Your task to perform on an android device: add a contact in the contacts app Image 0: 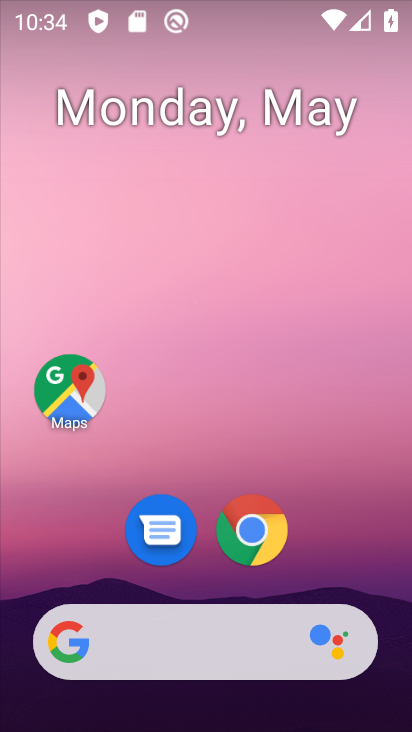
Step 0: drag from (324, 505) to (296, 52)
Your task to perform on an android device: add a contact in the contacts app Image 1: 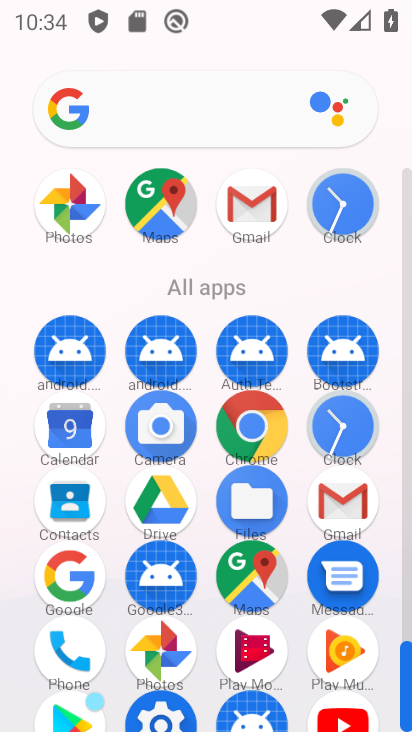
Step 1: click (81, 498)
Your task to perform on an android device: add a contact in the contacts app Image 2: 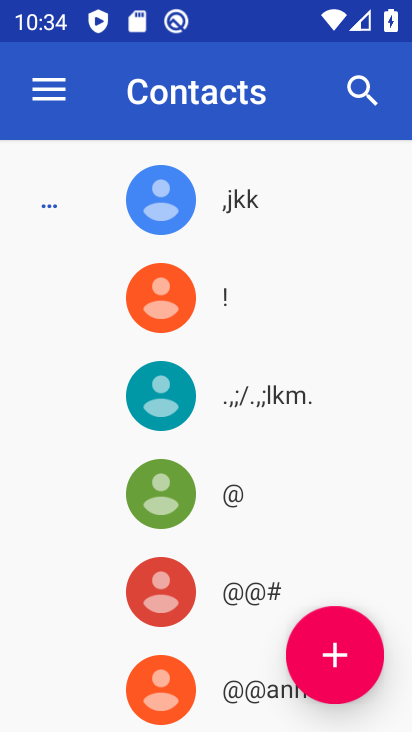
Step 2: click (333, 663)
Your task to perform on an android device: add a contact in the contacts app Image 3: 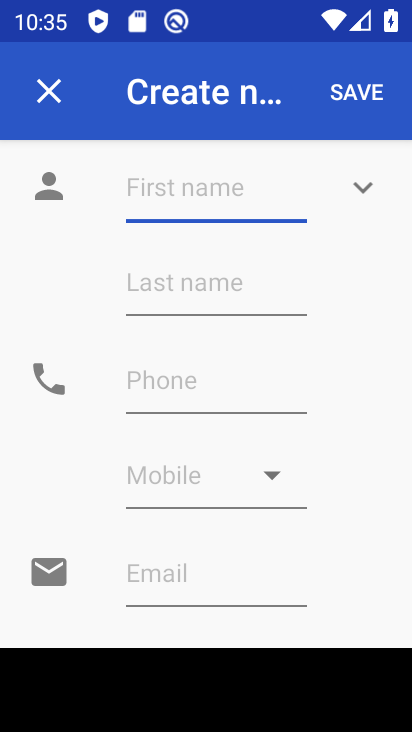
Step 3: type "Ahi"
Your task to perform on an android device: add a contact in the contacts app Image 4: 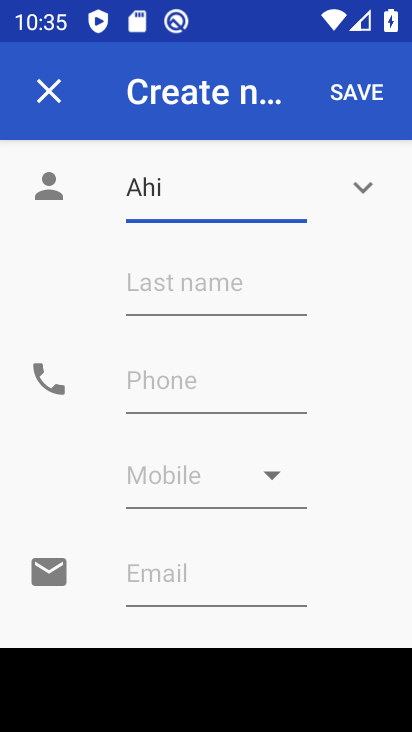
Step 4: click (167, 389)
Your task to perform on an android device: add a contact in the contacts app Image 5: 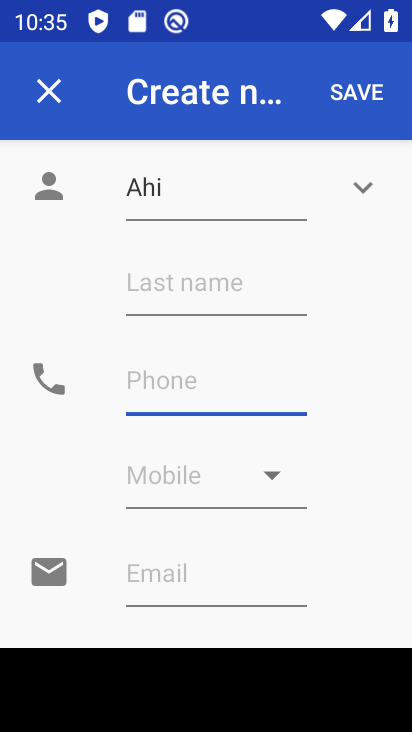
Step 5: type "0112233445566"
Your task to perform on an android device: add a contact in the contacts app Image 6: 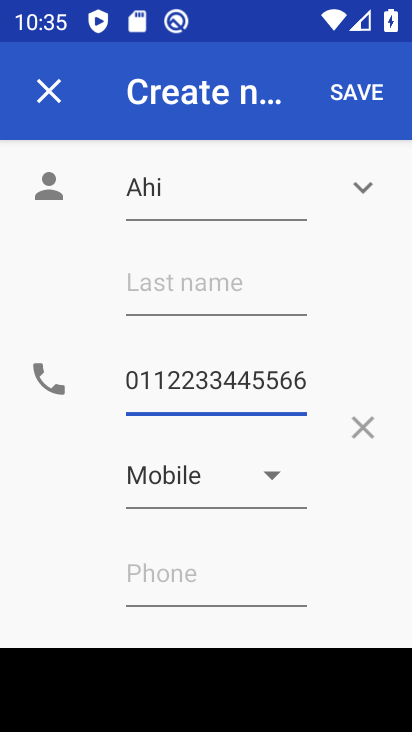
Step 6: click (360, 98)
Your task to perform on an android device: add a contact in the contacts app Image 7: 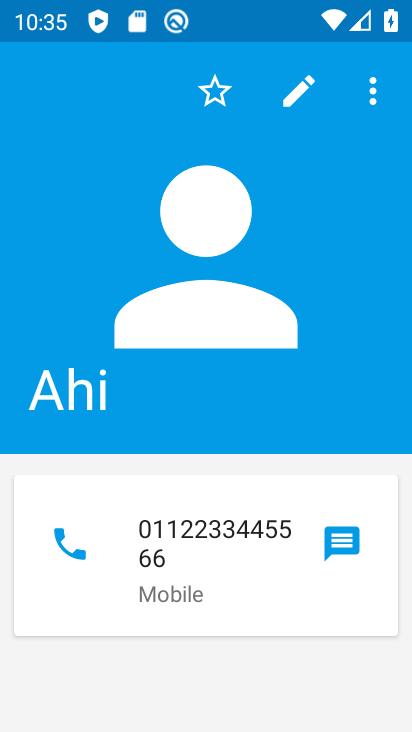
Step 7: task complete